Your task to perform on an android device: Go to settings Image 0: 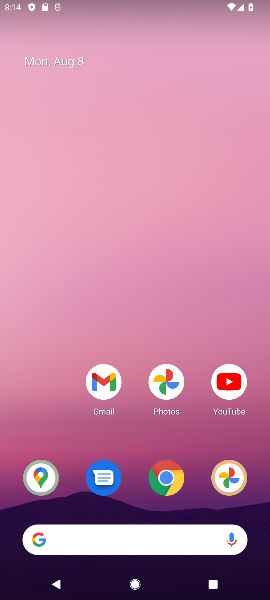
Step 0: drag from (139, 542) to (224, 243)
Your task to perform on an android device: Go to settings Image 1: 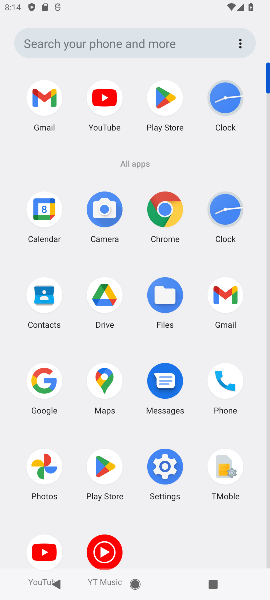
Step 1: click (166, 467)
Your task to perform on an android device: Go to settings Image 2: 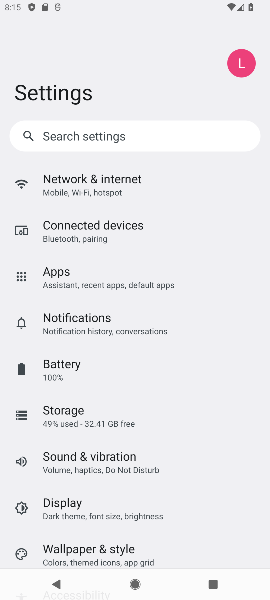
Step 2: task complete